Your task to perform on an android device: add a label to a message in the gmail app Image 0: 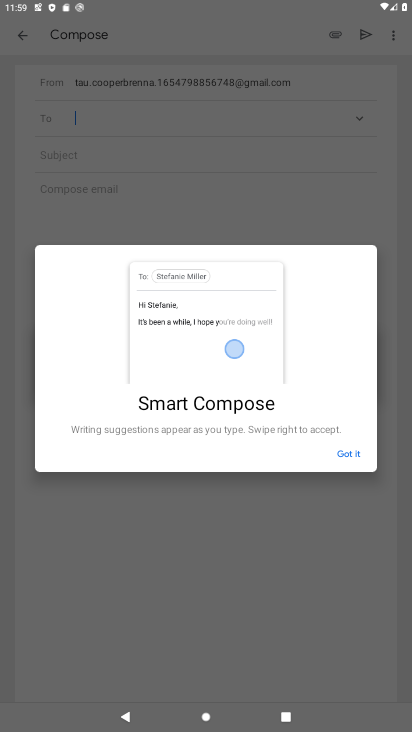
Step 0: press home button
Your task to perform on an android device: add a label to a message in the gmail app Image 1: 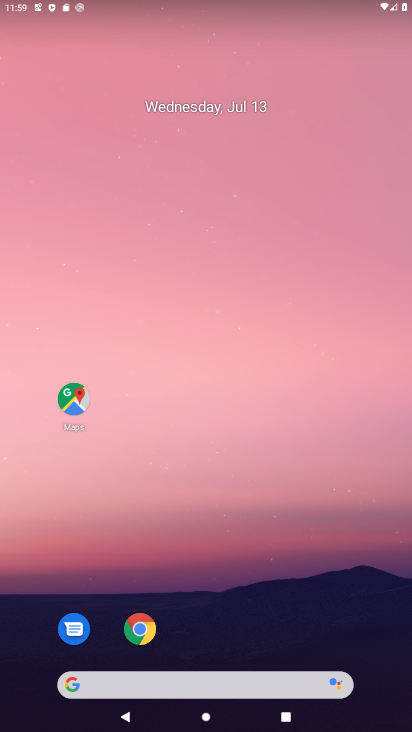
Step 1: drag from (272, 643) to (203, 192)
Your task to perform on an android device: add a label to a message in the gmail app Image 2: 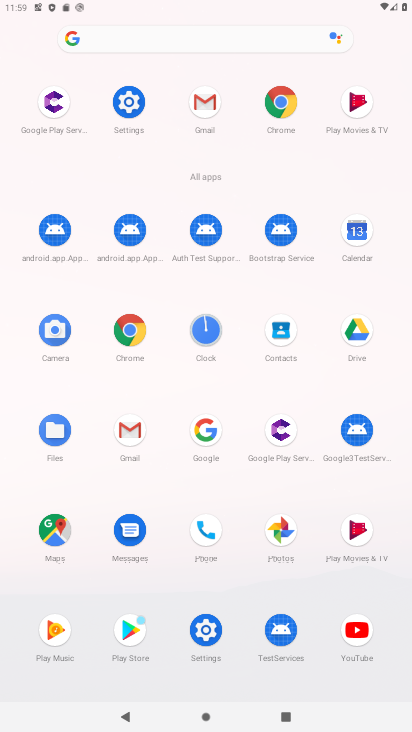
Step 2: click (212, 89)
Your task to perform on an android device: add a label to a message in the gmail app Image 3: 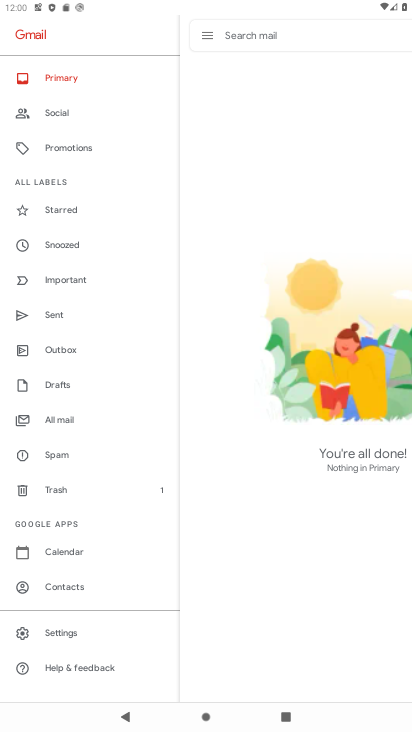
Step 3: task complete